Your task to perform on an android device: Open privacy settings Image 0: 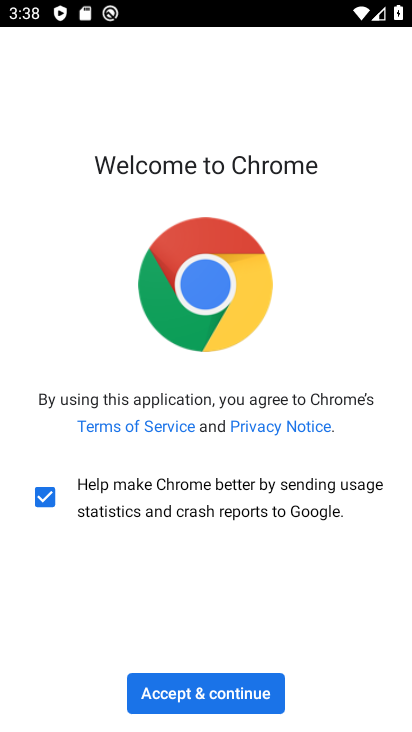
Step 0: click (223, 702)
Your task to perform on an android device: Open privacy settings Image 1: 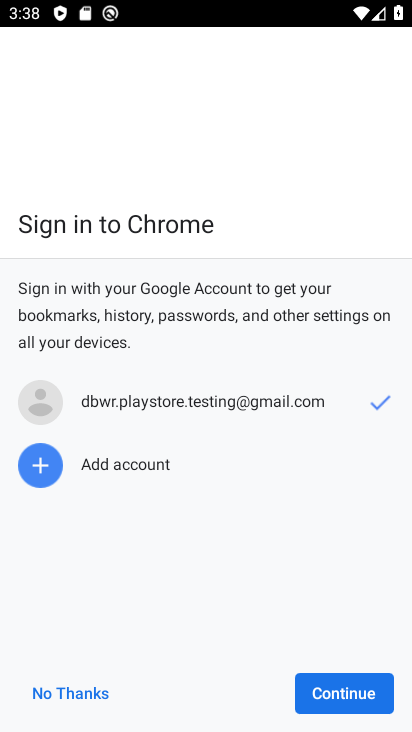
Step 1: click (349, 700)
Your task to perform on an android device: Open privacy settings Image 2: 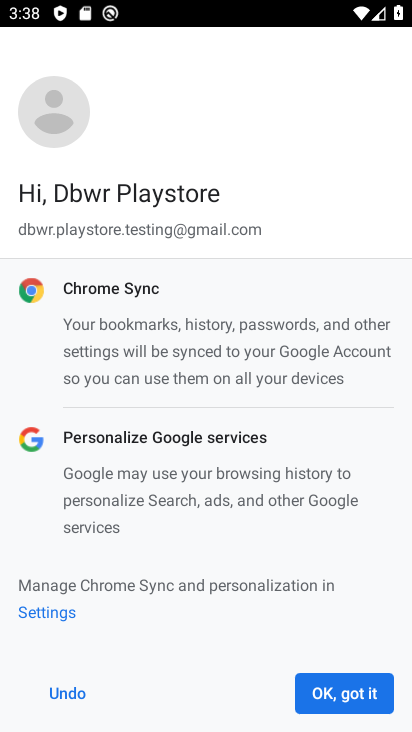
Step 2: click (349, 700)
Your task to perform on an android device: Open privacy settings Image 3: 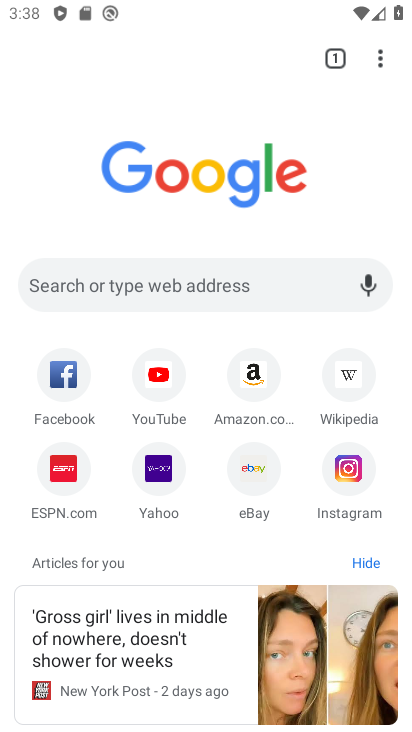
Step 3: press home button
Your task to perform on an android device: Open privacy settings Image 4: 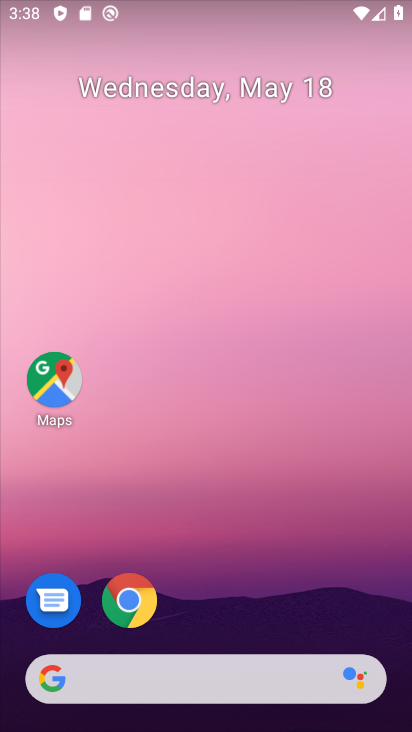
Step 4: drag from (229, 566) to (314, 7)
Your task to perform on an android device: Open privacy settings Image 5: 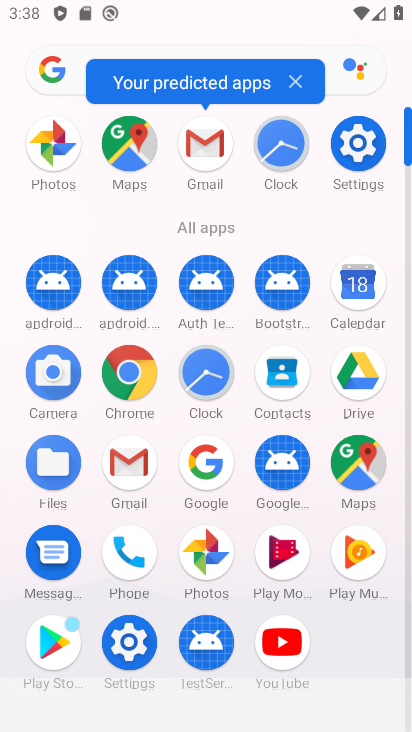
Step 5: click (364, 145)
Your task to perform on an android device: Open privacy settings Image 6: 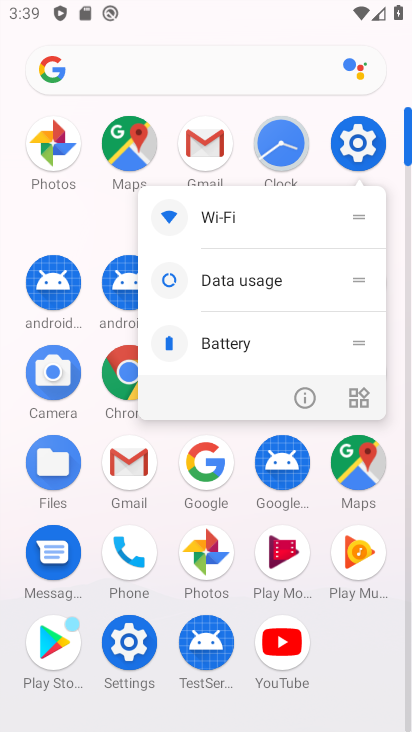
Step 6: click (359, 145)
Your task to perform on an android device: Open privacy settings Image 7: 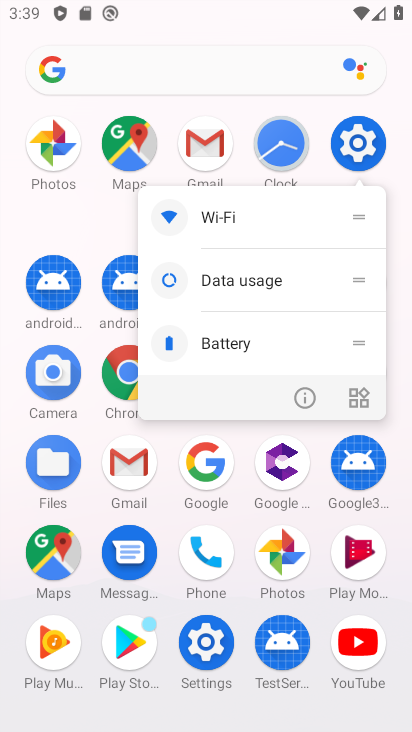
Step 7: click (233, 203)
Your task to perform on an android device: Open privacy settings Image 8: 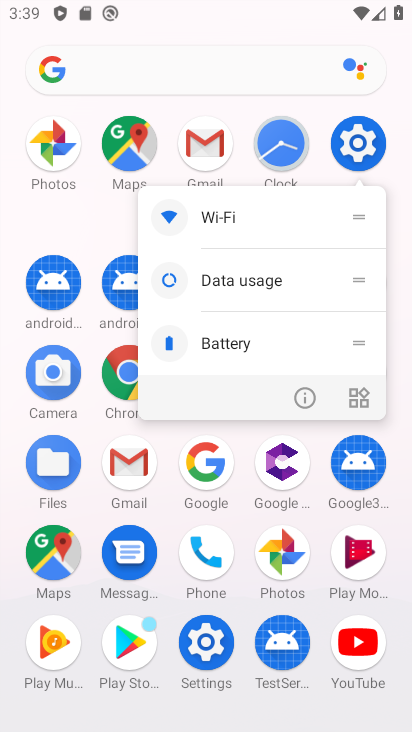
Step 8: click (357, 119)
Your task to perform on an android device: Open privacy settings Image 9: 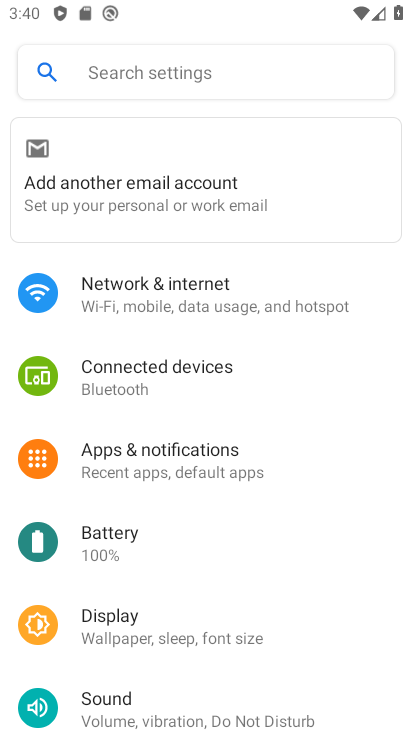
Step 9: drag from (171, 567) to (241, 151)
Your task to perform on an android device: Open privacy settings Image 10: 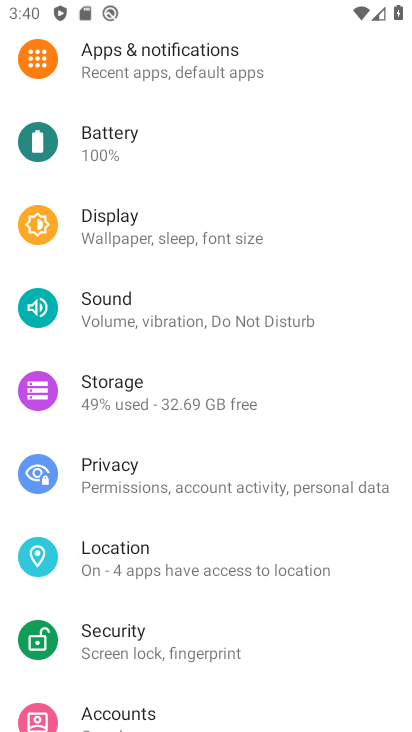
Step 10: click (127, 467)
Your task to perform on an android device: Open privacy settings Image 11: 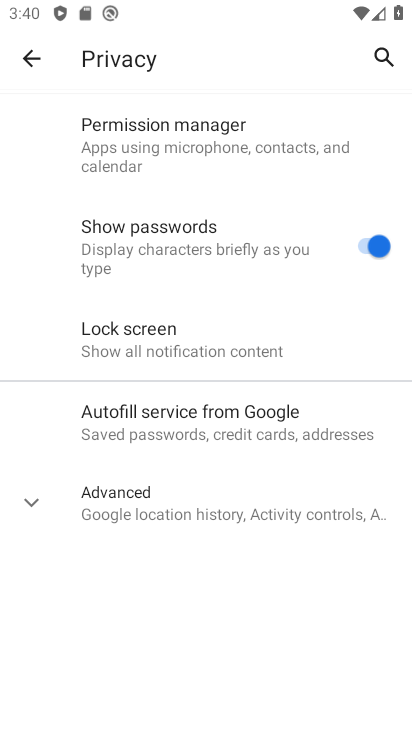
Step 11: task complete